Your task to perform on an android device: toggle data saver in the chrome app Image 0: 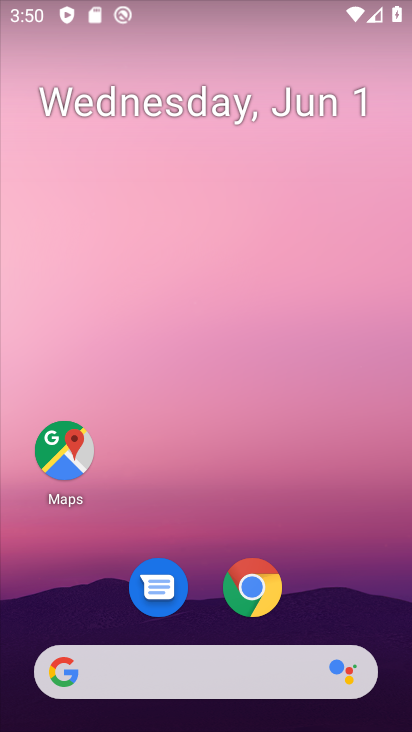
Step 0: click (254, 586)
Your task to perform on an android device: toggle data saver in the chrome app Image 1: 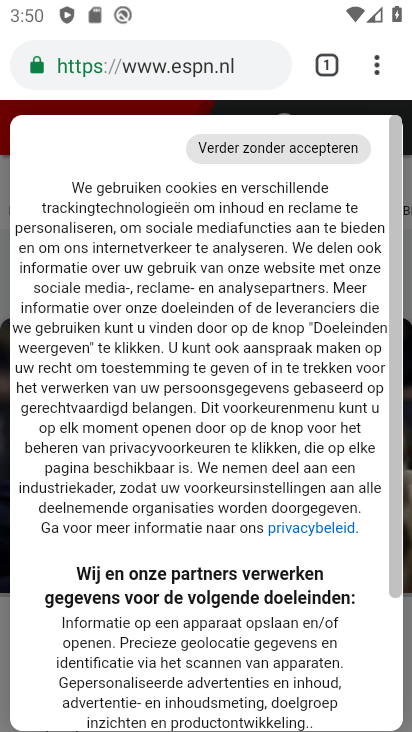
Step 1: click (376, 66)
Your task to perform on an android device: toggle data saver in the chrome app Image 2: 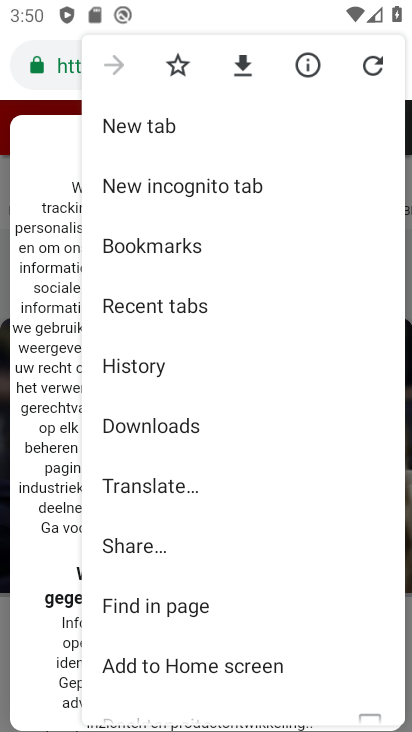
Step 2: drag from (161, 571) to (187, 502)
Your task to perform on an android device: toggle data saver in the chrome app Image 3: 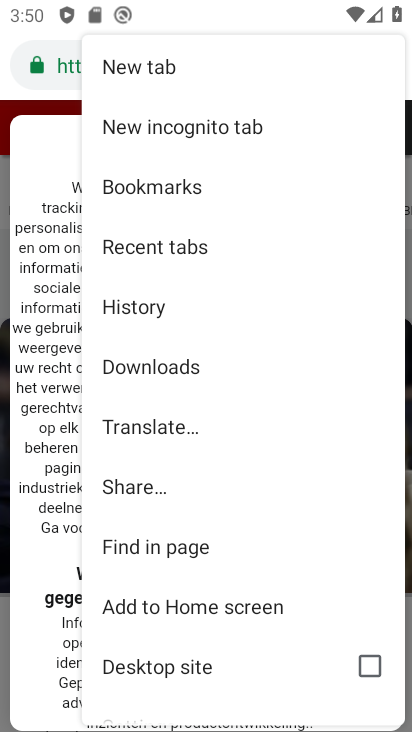
Step 3: drag from (177, 569) to (222, 501)
Your task to perform on an android device: toggle data saver in the chrome app Image 4: 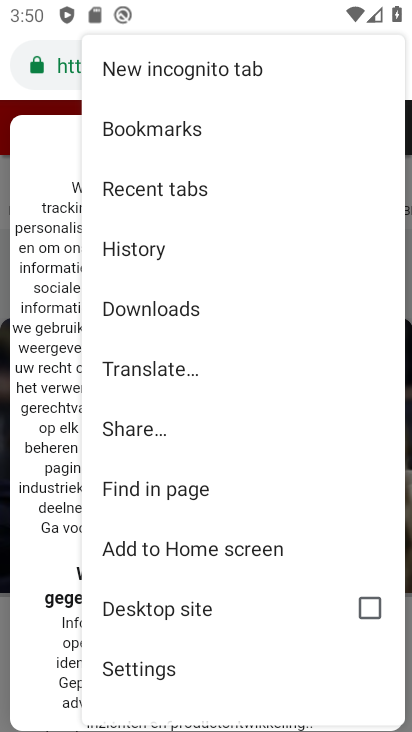
Step 4: drag from (158, 571) to (253, 470)
Your task to perform on an android device: toggle data saver in the chrome app Image 5: 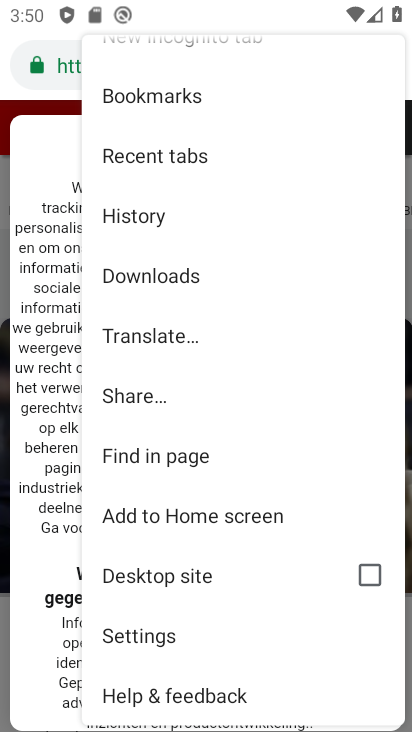
Step 5: click (162, 629)
Your task to perform on an android device: toggle data saver in the chrome app Image 6: 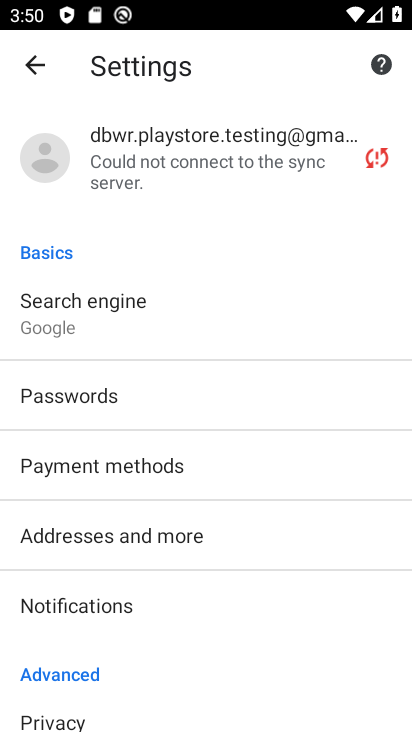
Step 6: drag from (145, 618) to (217, 534)
Your task to perform on an android device: toggle data saver in the chrome app Image 7: 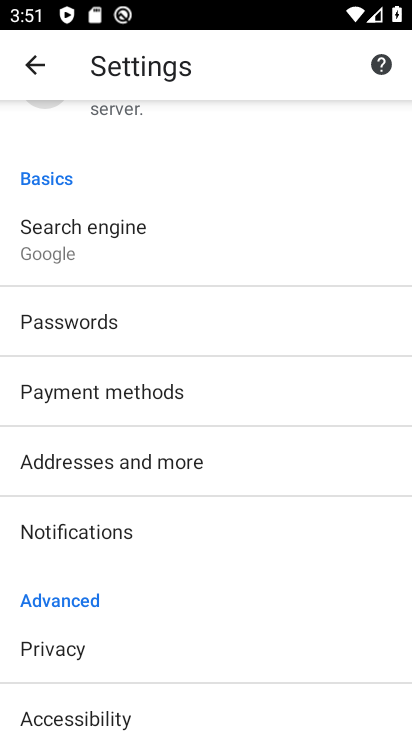
Step 7: drag from (156, 596) to (211, 525)
Your task to perform on an android device: toggle data saver in the chrome app Image 8: 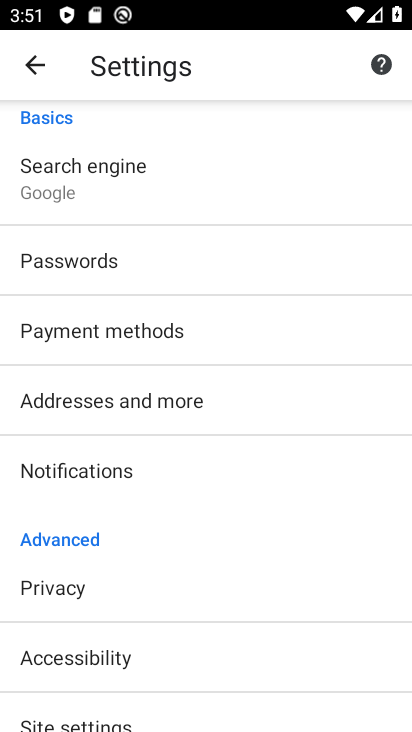
Step 8: drag from (157, 591) to (199, 525)
Your task to perform on an android device: toggle data saver in the chrome app Image 9: 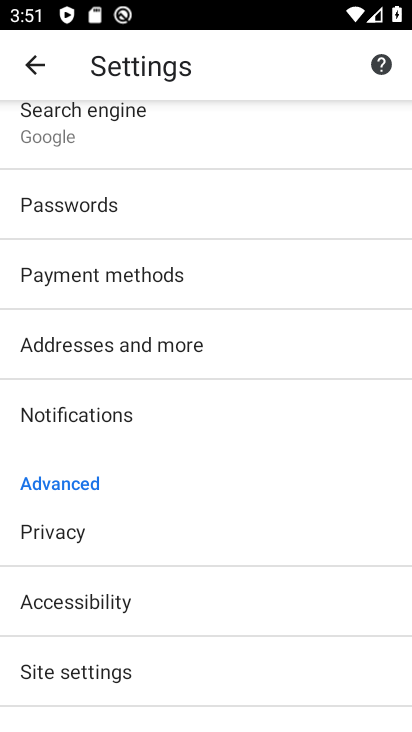
Step 9: drag from (152, 605) to (190, 529)
Your task to perform on an android device: toggle data saver in the chrome app Image 10: 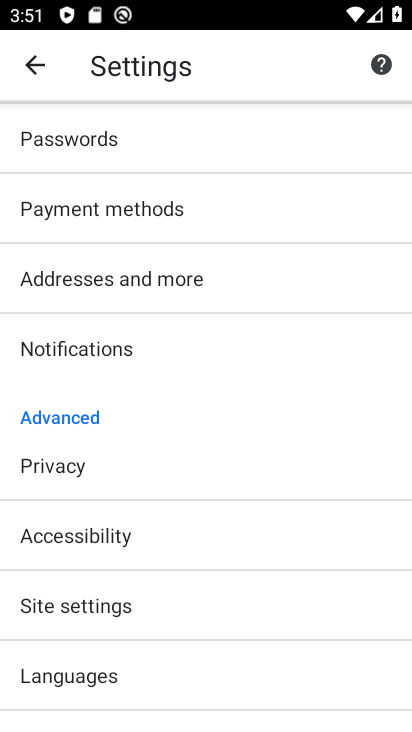
Step 10: drag from (145, 603) to (194, 539)
Your task to perform on an android device: toggle data saver in the chrome app Image 11: 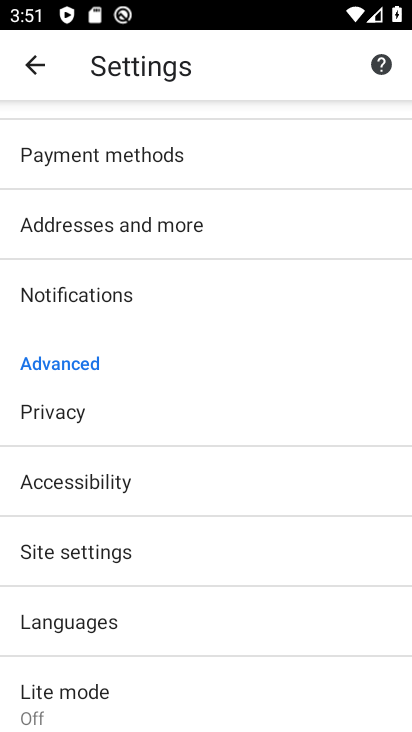
Step 11: drag from (141, 622) to (184, 555)
Your task to perform on an android device: toggle data saver in the chrome app Image 12: 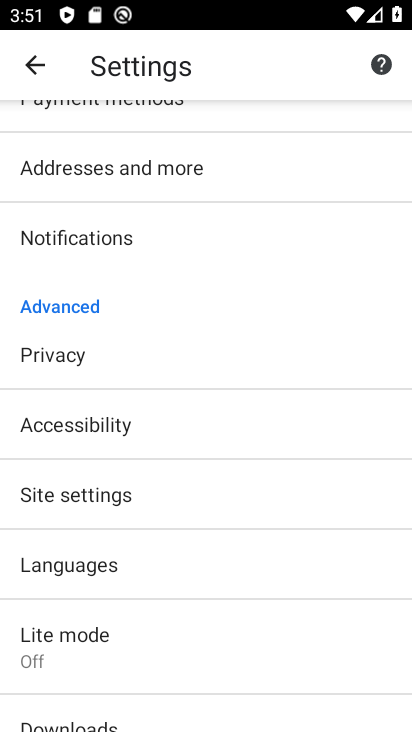
Step 12: drag from (130, 649) to (166, 579)
Your task to perform on an android device: toggle data saver in the chrome app Image 13: 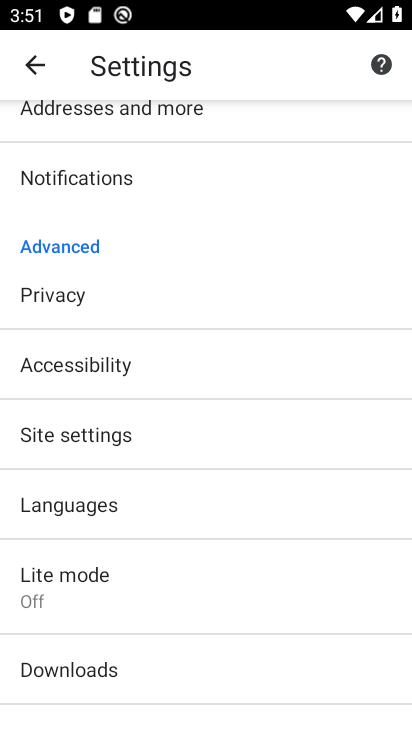
Step 13: click (92, 592)
Your task to perform on an android device: toggle data saver in the chrome app Image 14: 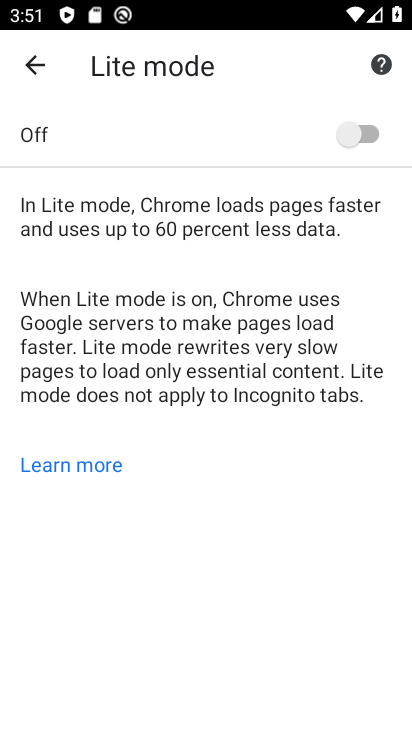
Step 14: click (372, 141)
Your task to perform on an android device: toggle data saver in the chrome app Image 15: 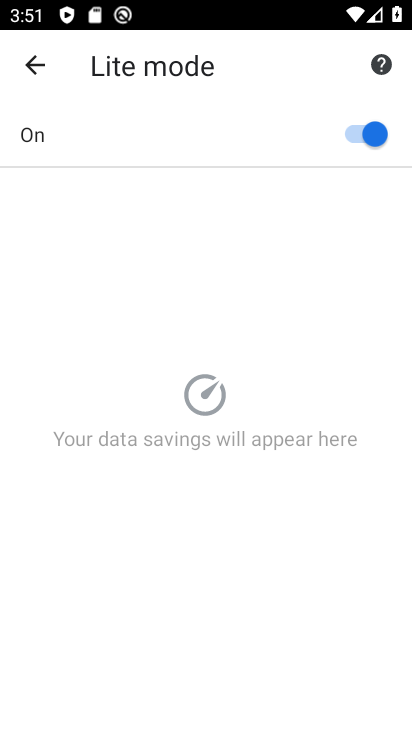
Step 15: task complete